Your task to perform on an android device: search for starred emails in the gmail app Image 0: 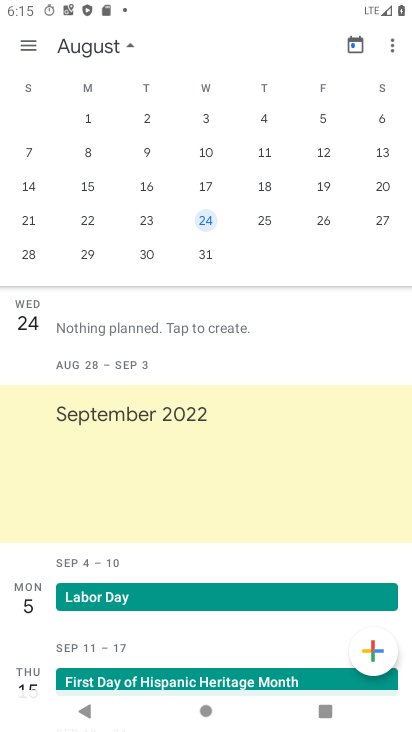
Step 0: press home button
Your task to perform on an android device: search for starred emails in the gmail app Image 1: 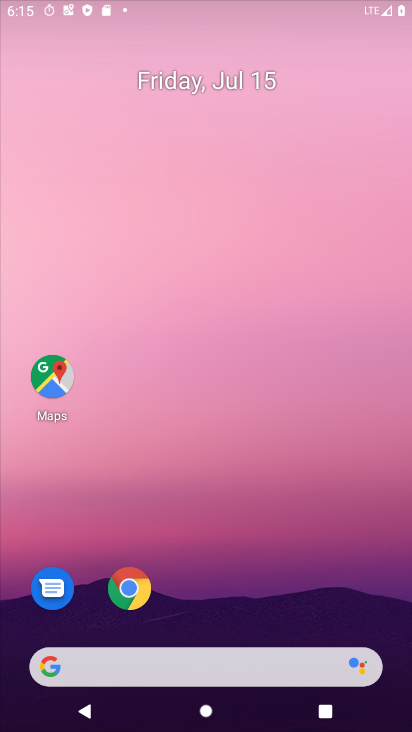
Step 1: drag from (265, 606) to (234, 65)
Your task to perform on an android device: search for starred emails in the gmail app Image 2: 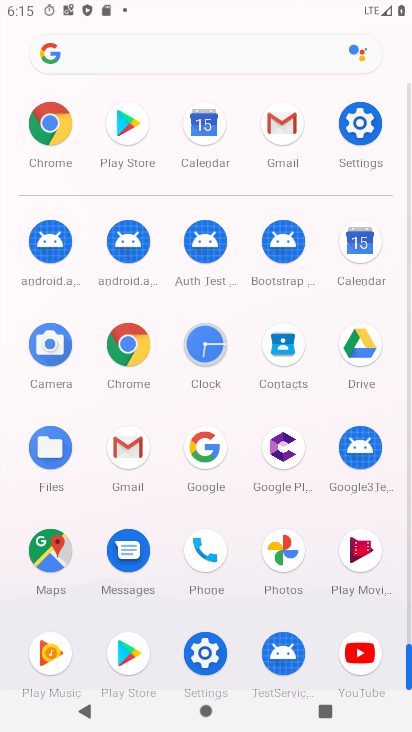
Step 2: click (141, 450)
Your task to perform on an android device: search for starred emails in the gmail app Image 3: 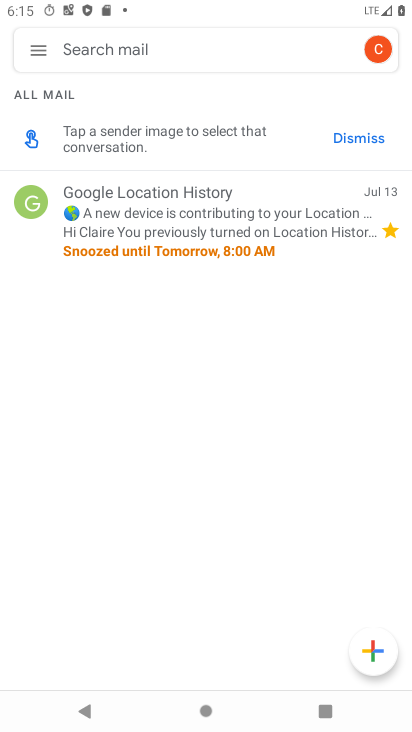
Step 3: click (38, 41)
Your task to perform on an android device: search for starred emails in the gmail app Image 4: 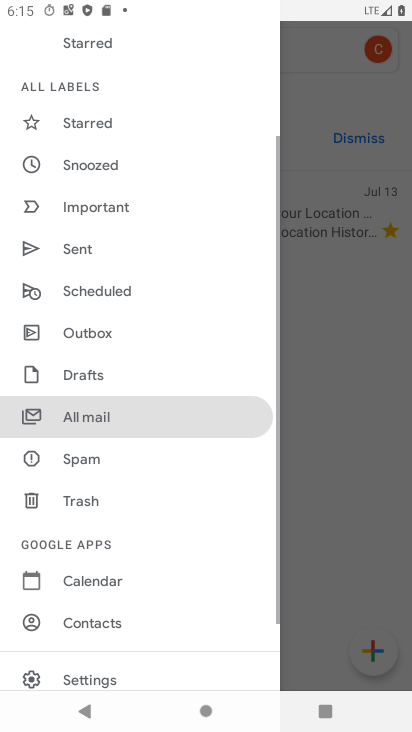
Step 4: click (98, 116)
Your task to perform on an android device: search for starred emails in the gmail app Image 5: 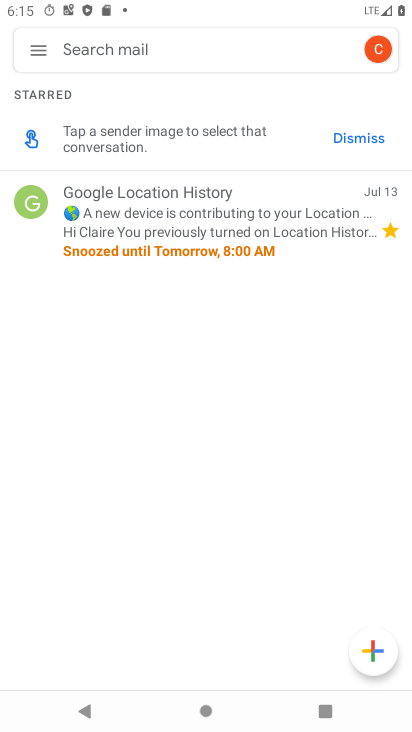
Step 5: click (42, 55)
Your task to perform on an android device: search for starred emails in the gmail app Image 6: 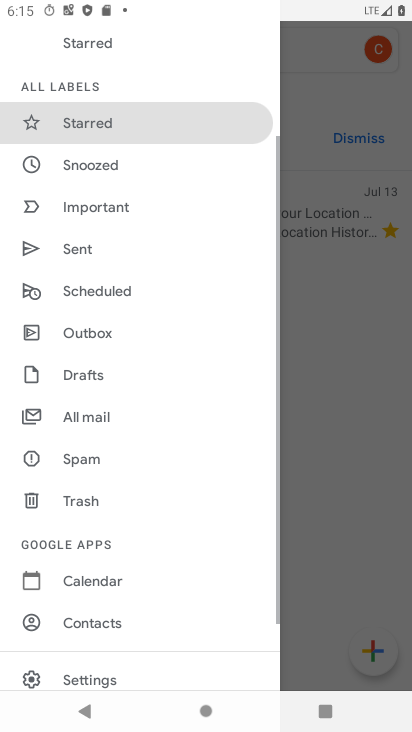
Step 6: click (103, 119)
Your task to perform on an android device: search for starred emails in the gmail app Image 7: 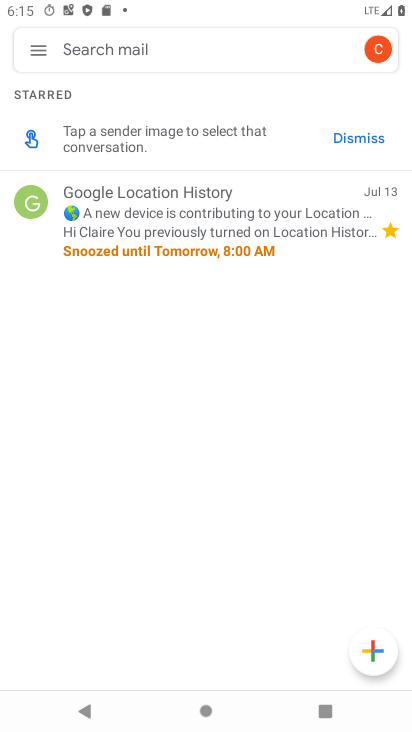
Step 7: task complete